Your task to perform on an android device: toggle airplane mode Image 0: 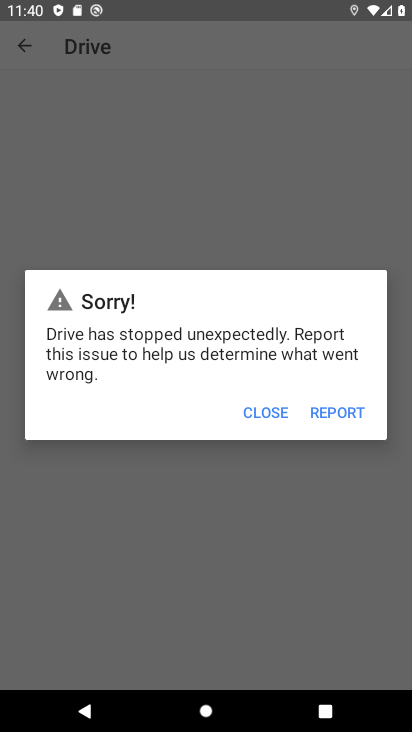
Step 0: press home button
Your task to perform on an android device: toggle airplane mode Image 1: 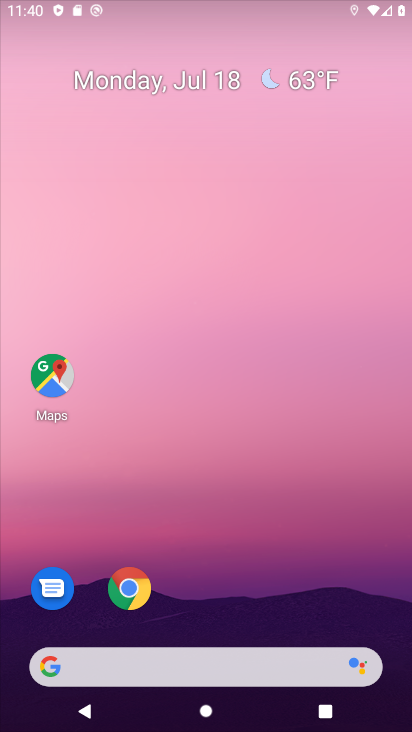
Step 1: drag from (337, 610) to (409, 11)
Your task to perform on an android device: toggle airplane mode Image 2: 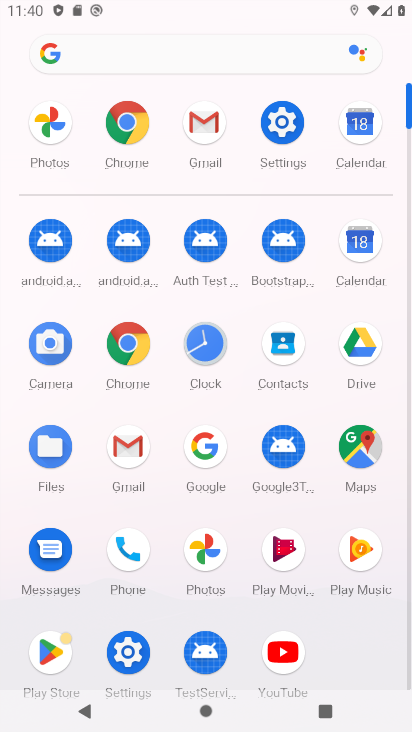
Step 2: click (278, 127)
Your task to perform on an android device: toggle airplane mode Image 3: 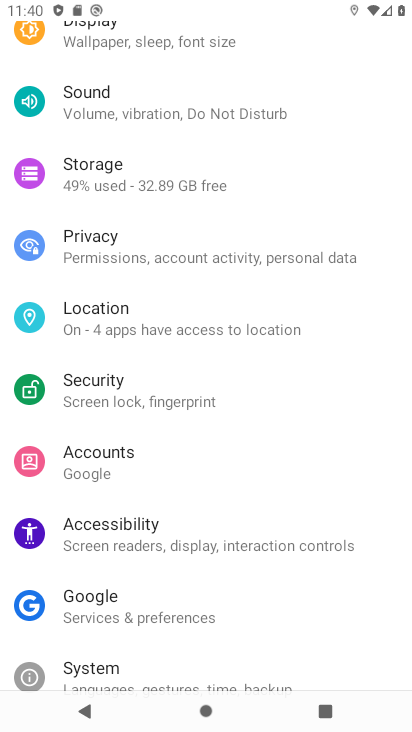
Step 3: drag from (279, 137) to (242, 706)
Your task to perform on an android device: toggle airplane mode Image 4: 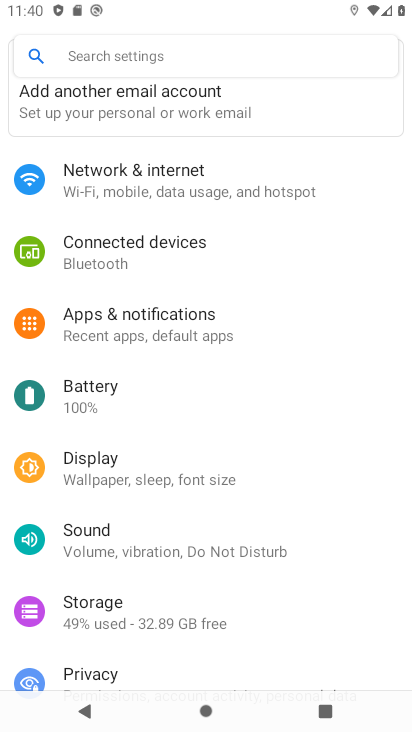
Step 4: drag from (278, 117) to (257, 622)
Your task to perform on an android device: toggle airplane mode Image 5: 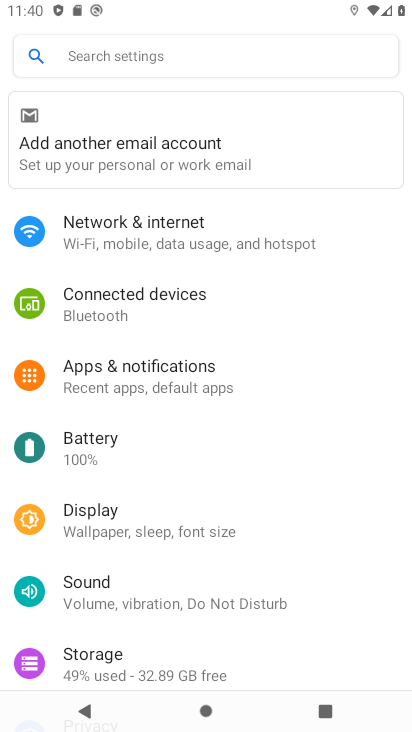
Step 5: click (183, 235)
Your task to perform on an android device: toggle airplane mode Image 6: 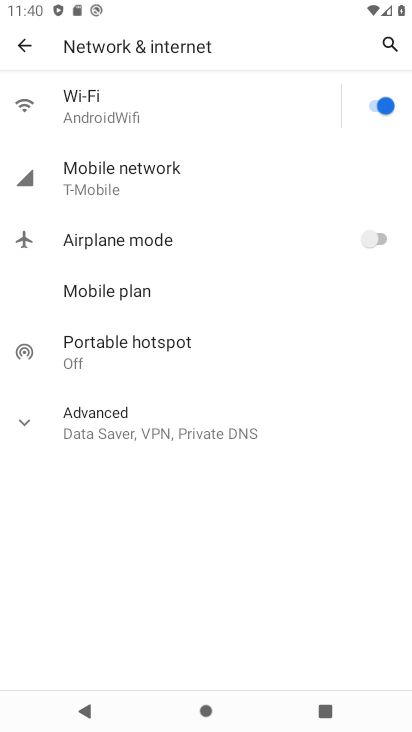
Step 6: click (373, 238)
Your task to perform on an android device: toggle airplane mode Image 7: 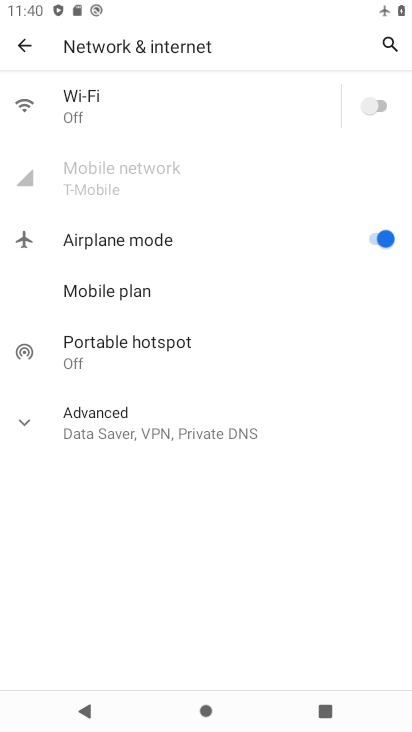
Step 7: task complete